Your task to perform on an android device: turn off improve location accuracy Image 0: 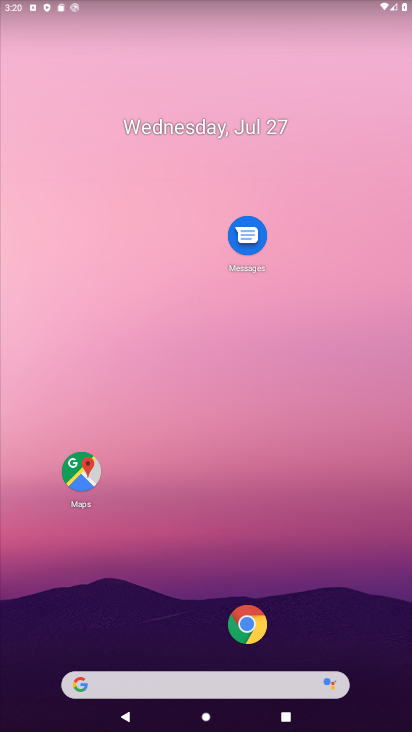
Step 0: drag from (124, 637) to (23, 65)
Your task to perform on an android device: turn off improve location accuracy Image 1: 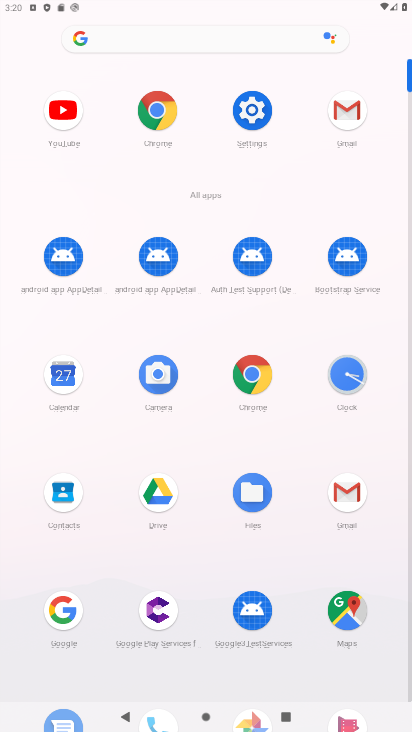
Step 1: click (233, 95)
Your task to perform on an android device: turn off improve location accuracy Image 2: 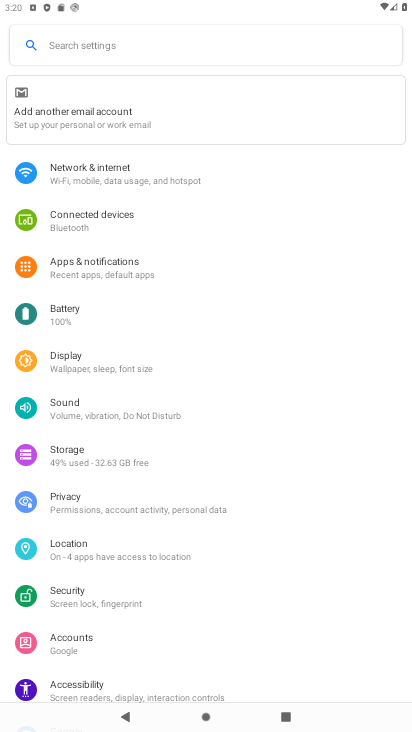
Step 2: click (196, 553)
Your task to perform on an android device: turn off improve location accuracy Image 3: 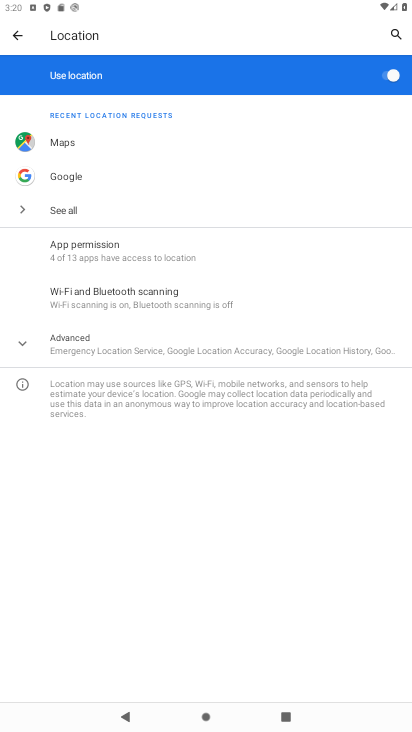
Step 3: click (116, 358)
Your task to perform on an android device: turn off improve location accuracy Image 4: 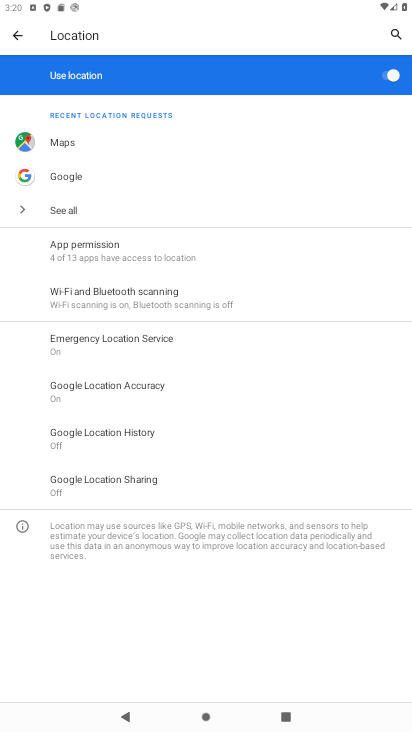
Step 4: click (105, 390)
Your task to perform on an android device: turn off improve location accuracy Image 5: 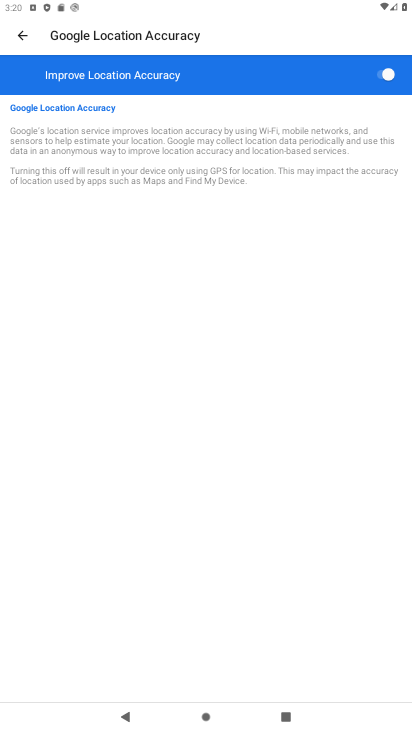
Step 5: click (389, 74)
Your task to perform on an android device: turn off improve location accuracy Image 6: 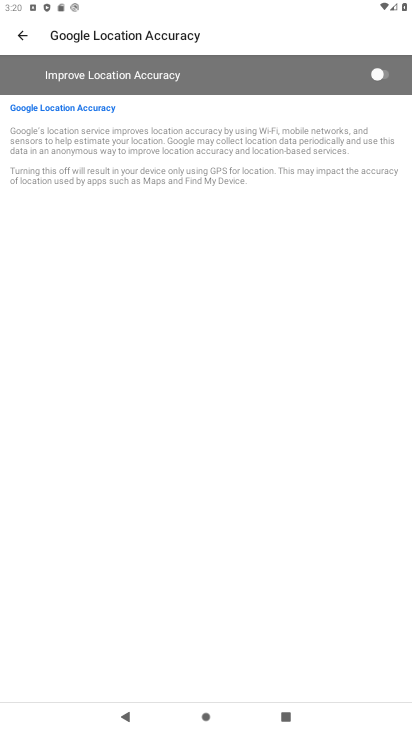
Step 6: task complete